Your task to perform on an android device: Go to Amazon Image 0: 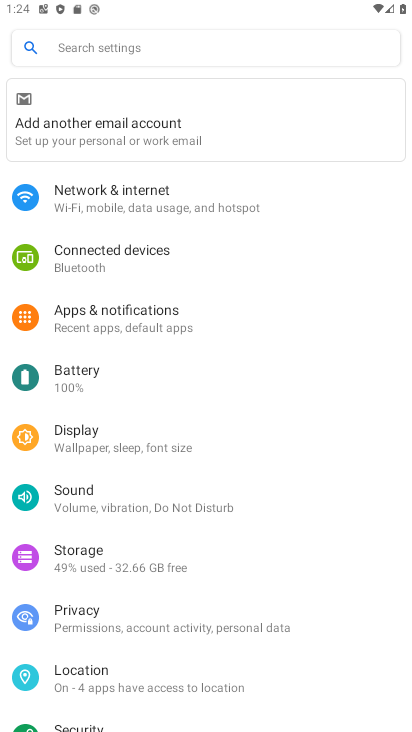
Step 0: press home button
Your task to perform on an android device: Go to Amazon Image 1: 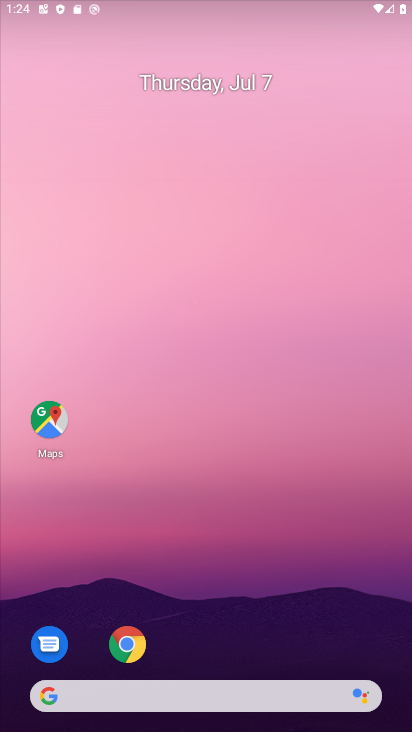
Step 1: drag from (307, 582) to (311, 0)
Your task to perform on an android device: Go to Amazon Image 2: 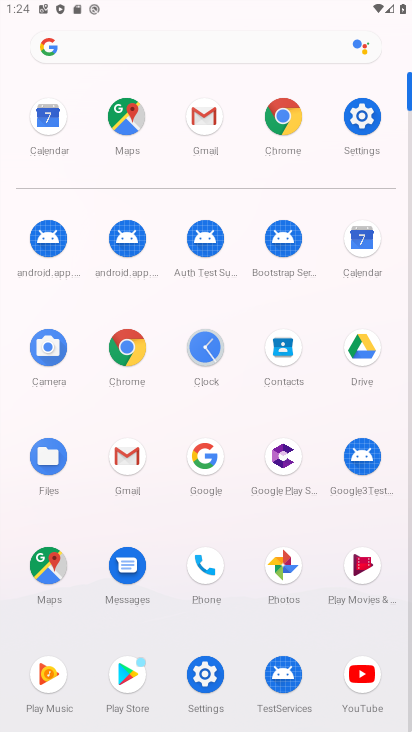
Step 2: click (139, 364)
Your task to perform on an android device: Go to Amazon Image 3: 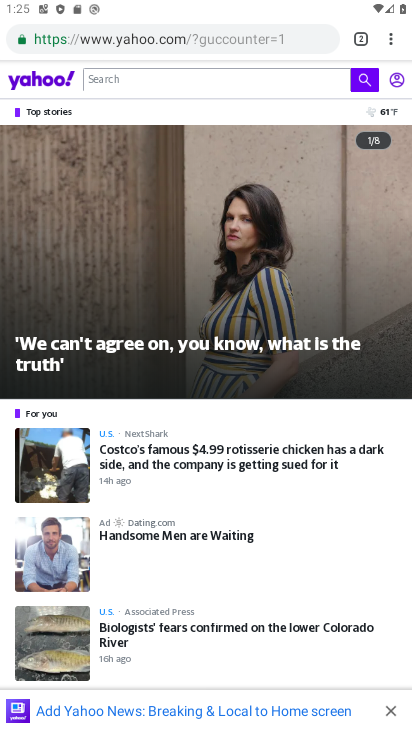
Step 3: click (357, 49)
Your task to perform on an android device: Go to Amazon Image 4: 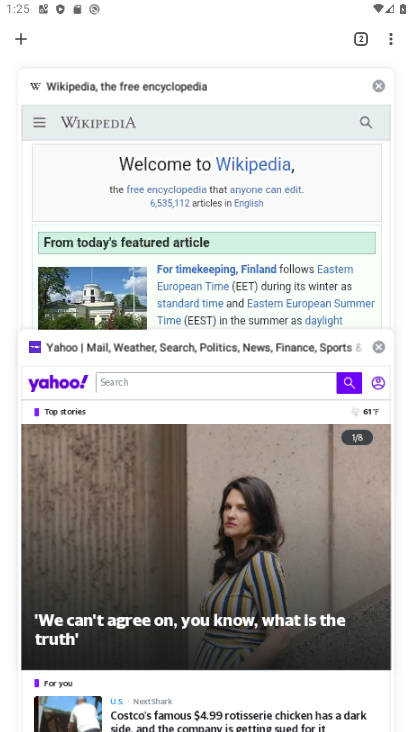
Step 4: click (27, 43)
Your task to perform on an android device: Go to Amazon Image 5: 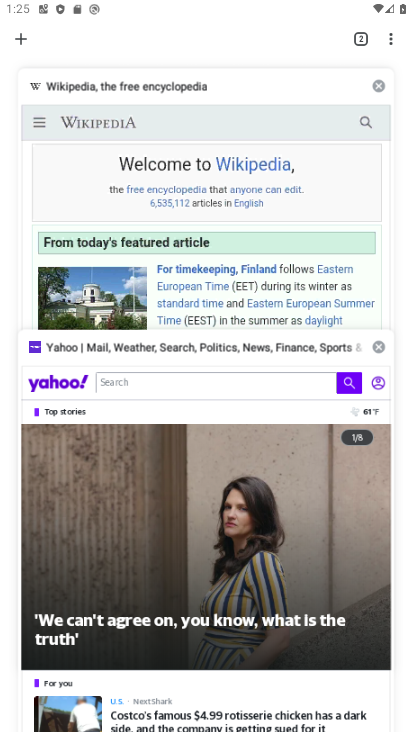
Step 5: click (21, 44)
Your task to perform on an android device: Go to Amazon Image 6: 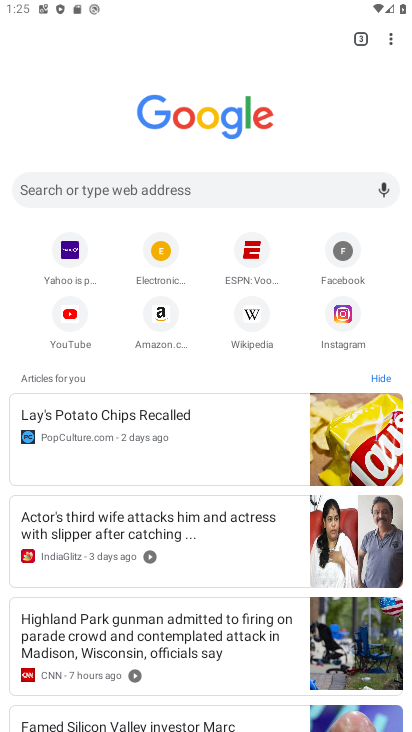
Step 6: click (177, 324)
Your task to perform on an android device: Go to Amazon Image 7: 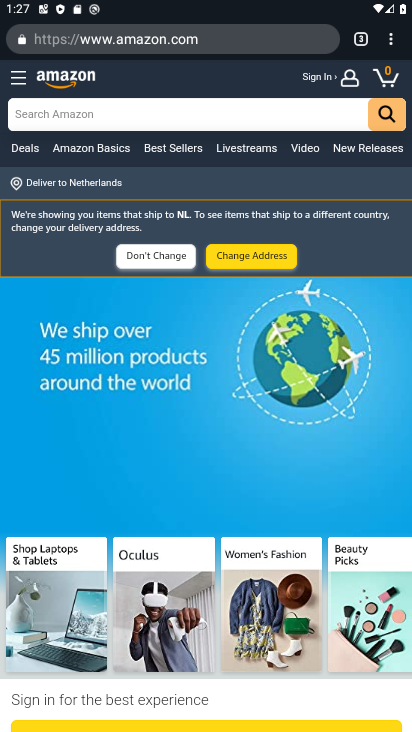
Step 7: task complete